Your task to perform on an android device: add a contact Image 0: 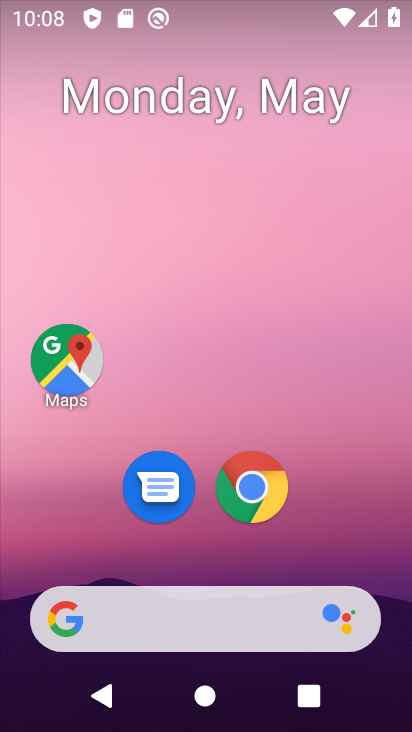
Step 0: drag from (395, 552) to (388, 211)
Your task to perform on an android device: add a contact Image 1: 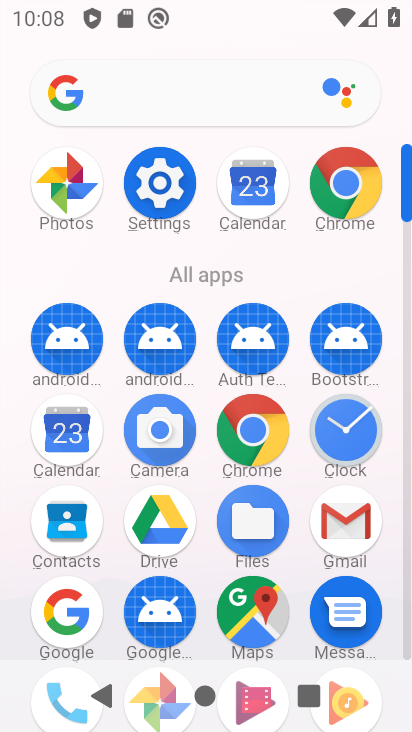
Step 1: click (75, 536)
Your task to perform on an android device: add a contact Image 2: 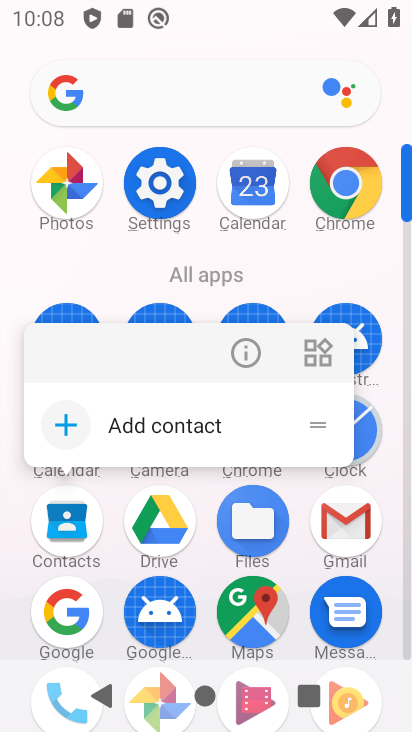
Step 2: click (76, 535)
Your task to perform on an android device: add a contact Image 3: 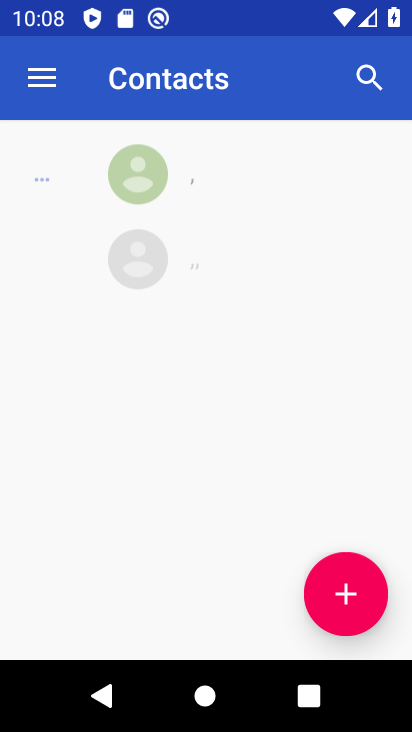
Step 3: click (355, 615)
Your task to perform on an android device: add a contact Image 4: 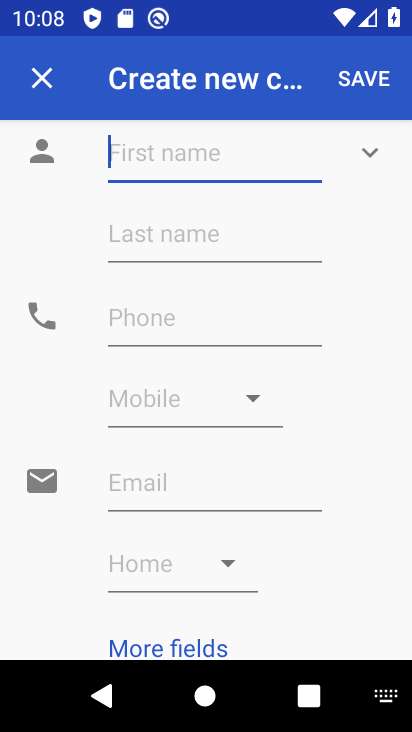
Step 4: click (171, 152)
Your task to perform on an android device: add a contact Image 5: 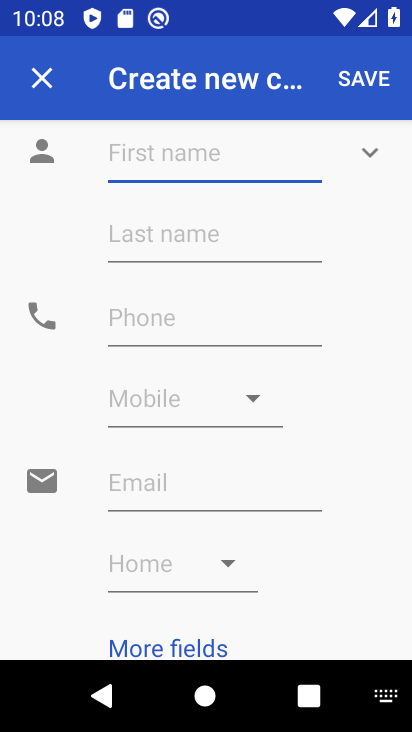
Step 5: type "love 12"
Your task to perform on an android device: add a contact Image 6: 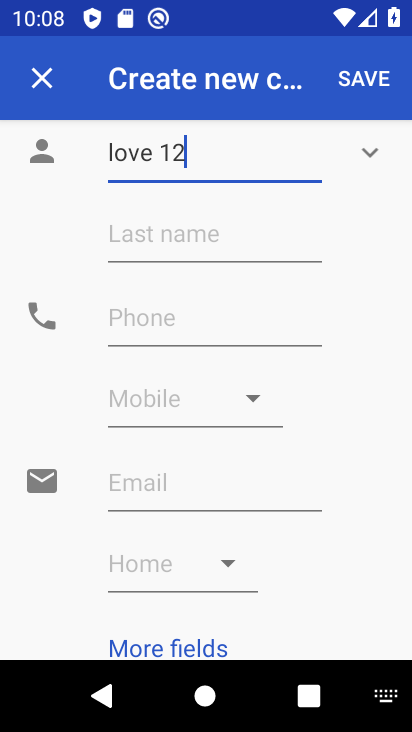
Step 6: click (133, 325)
Your task to perform on an android device: add a contact Image 7: 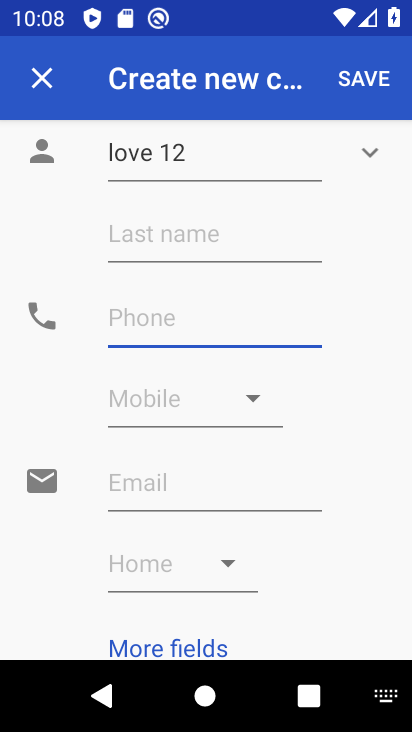
Step 7: type "1234567890"
Your task to perform on an android device: add a contact Image 8: 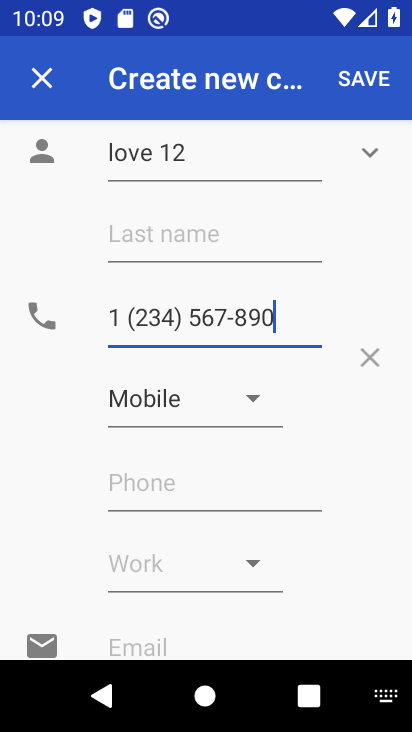
Step 8: click (348, 77)
Your task to perform on an android device: add a contact Image 9: 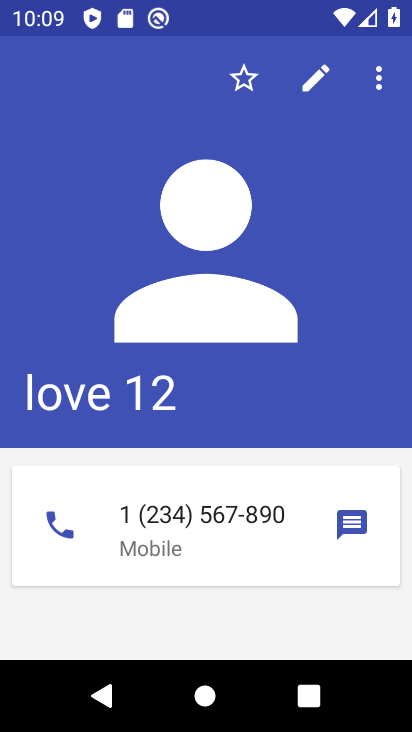
Step 9: task complete